Your task to perform on an android device: turn off notifications in google photos Image 0: 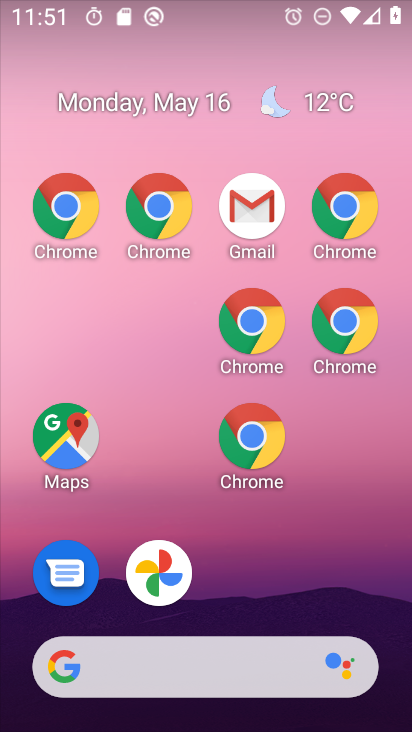
Step 0: drag from (309, 681) to (285, 8)
Your task to perform on an android device: turn off notifications in google photos Image 1: 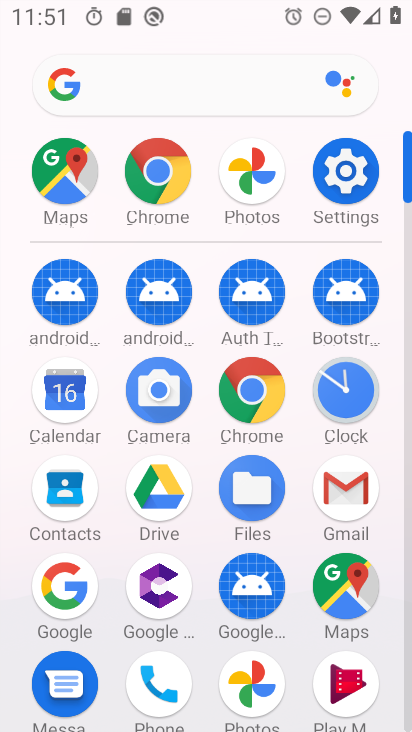
Step 1: click (259, 678)
Your task to perform on an android device: turn off notifications in google photos Image 2: 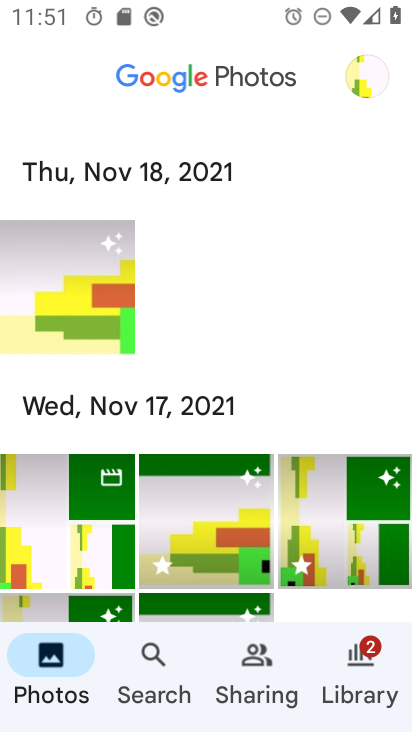
Step 2: task complete